Your task to perform on an android device: Open Google Image 0: 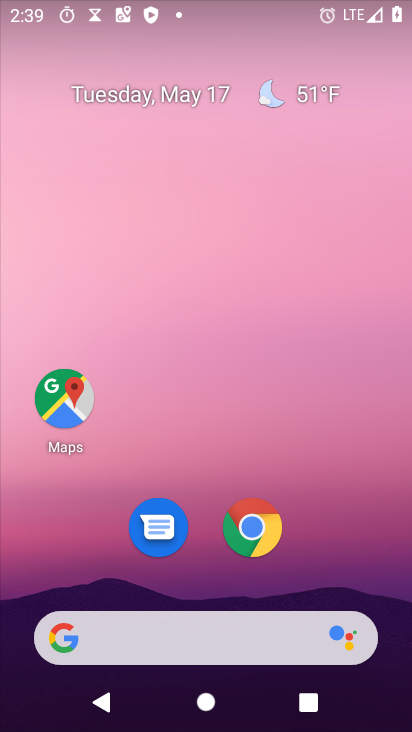
Step 0: drag from (325, 566) to (215, 60)
Your task to perform on an android device: Open Google Image 1: 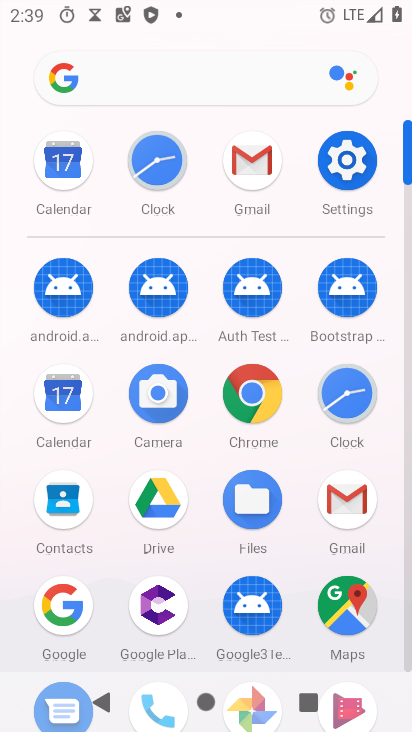
Step 1: drag from (206, 474) to (196, 258)
Your task to perform on an android device: Open Google Image 2: 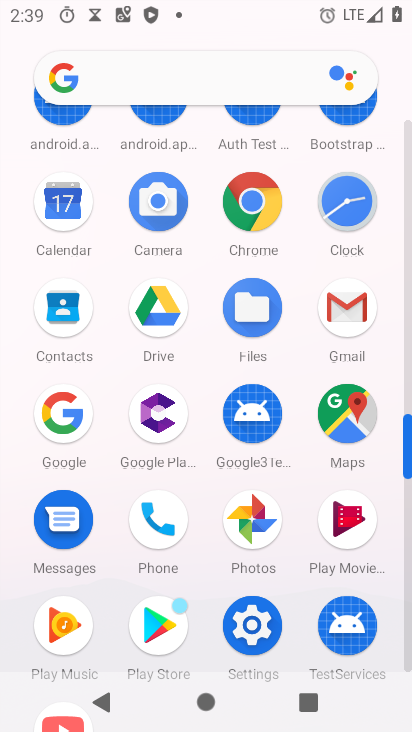
Step 2: click (57, 411)
Your task to perform on an android device: Open Google Image 3: 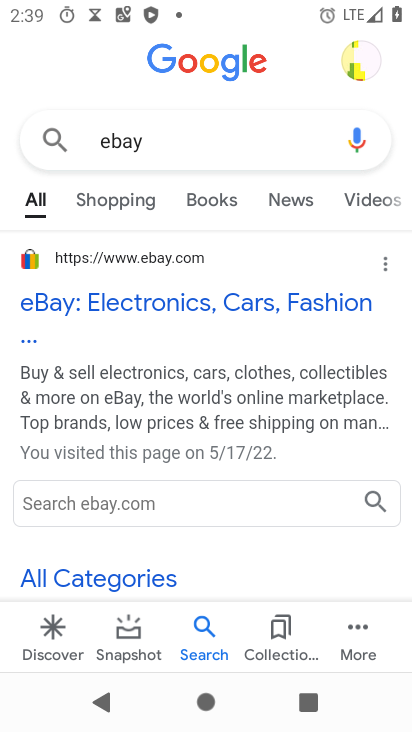
Step 3: task complete